Your task to perform on an android device: find photos in the google photos app Image 0: 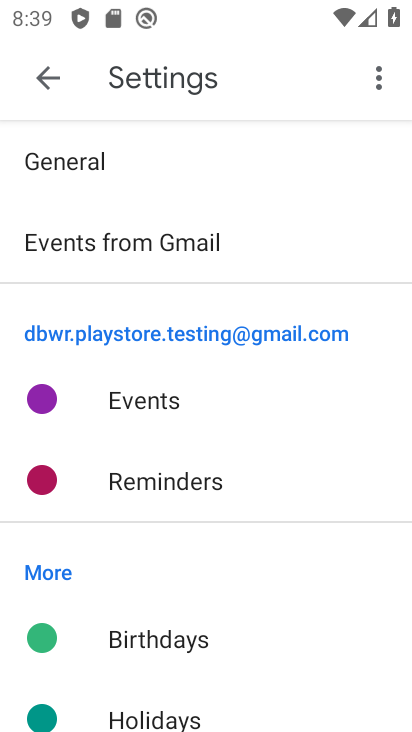
Step 0: press home button
Your task to perform on an android device: find photos in the google photos app Image 1: 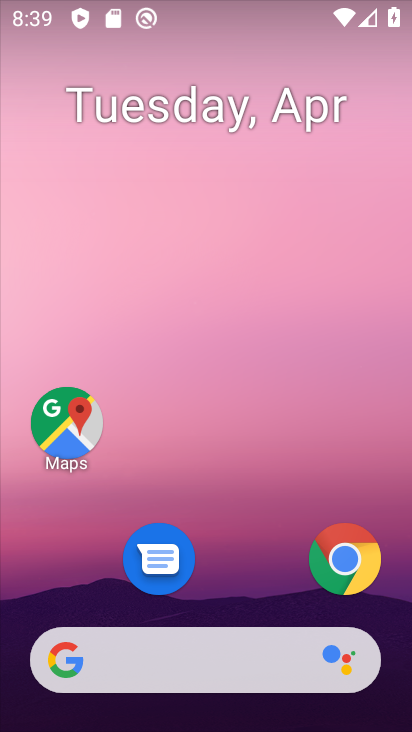
Step 1: drag from (256, 680) to (247, 82)
Your task to perform on an android device: find photos in the google photos app Image 2: 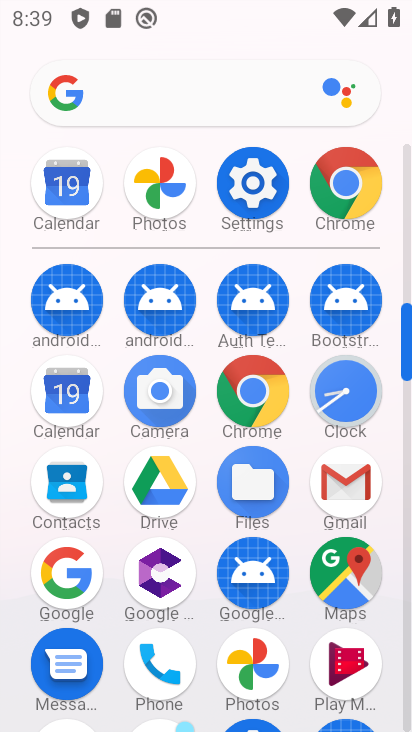
Step 2: click (265, 657)
Your task to perform on an android device: find photos in the google photos app Image 3: 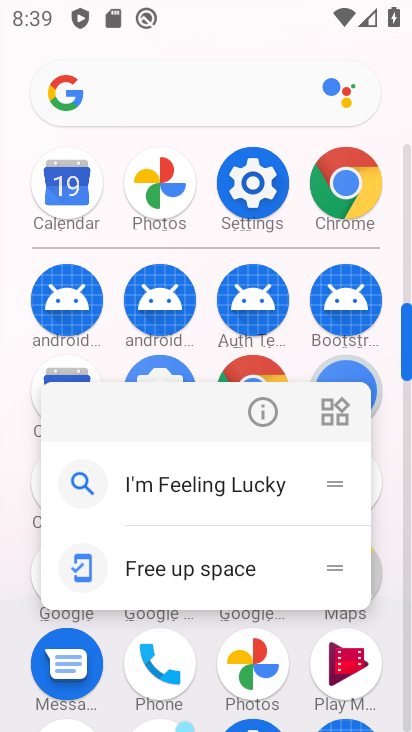
Step 3: click (252, 668)
Your task to perform on an android device: find photos in the google photos app Image 4: 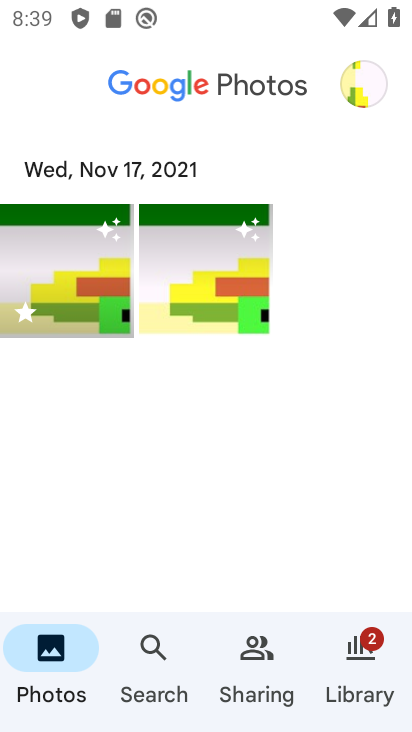
Step 4: task complete